Your task to perform on an android device: Go to location settings Image 0: 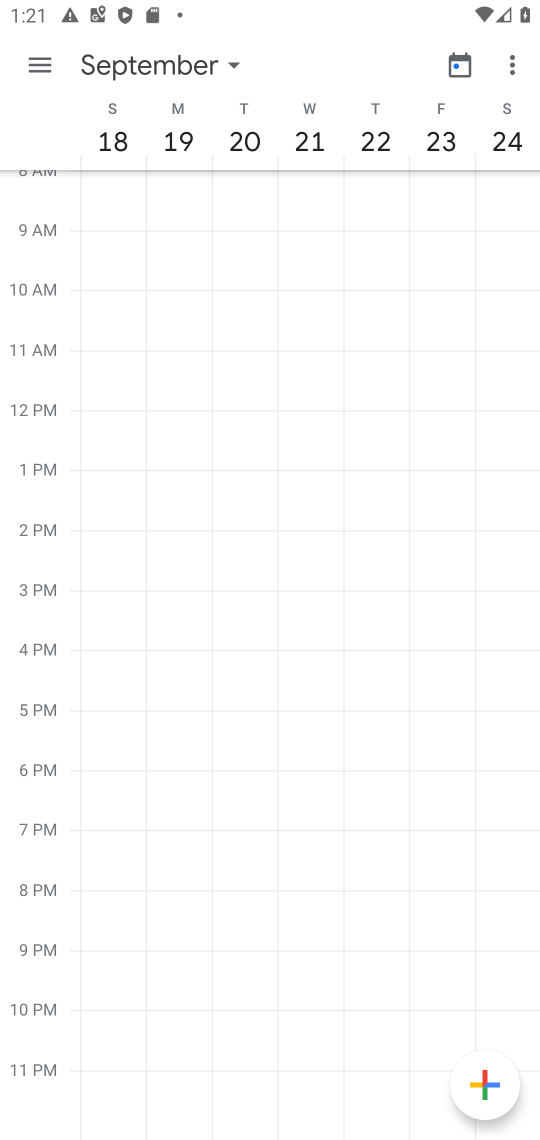
Step 0: press home button
Your task to perform on an android device: Go to location settings Image 1: 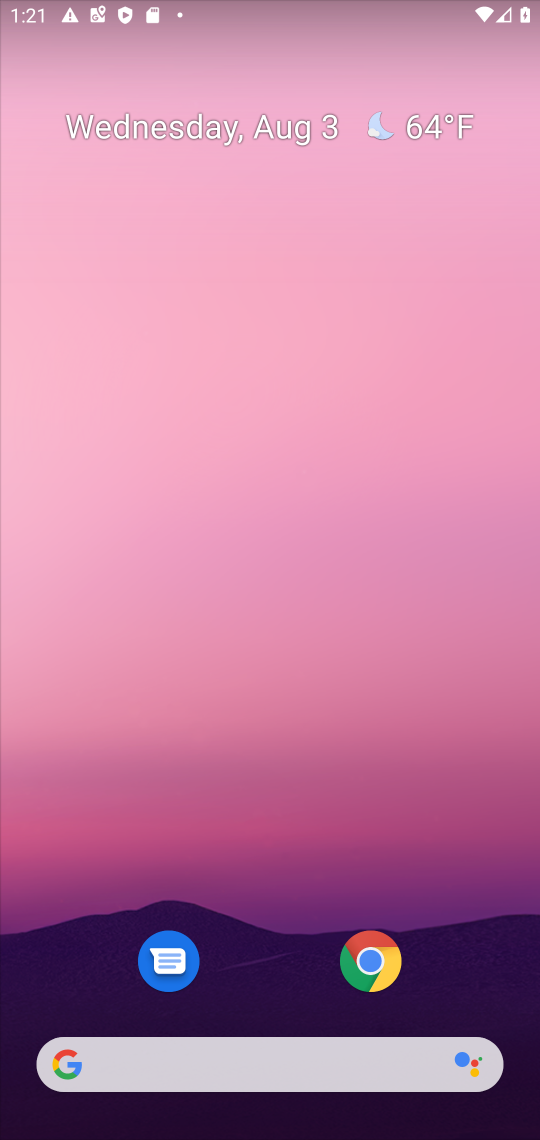
Step 1: drag from (272, 930) to (285, 54)
Your task to perform on an android device: Go to location settings Image 2: 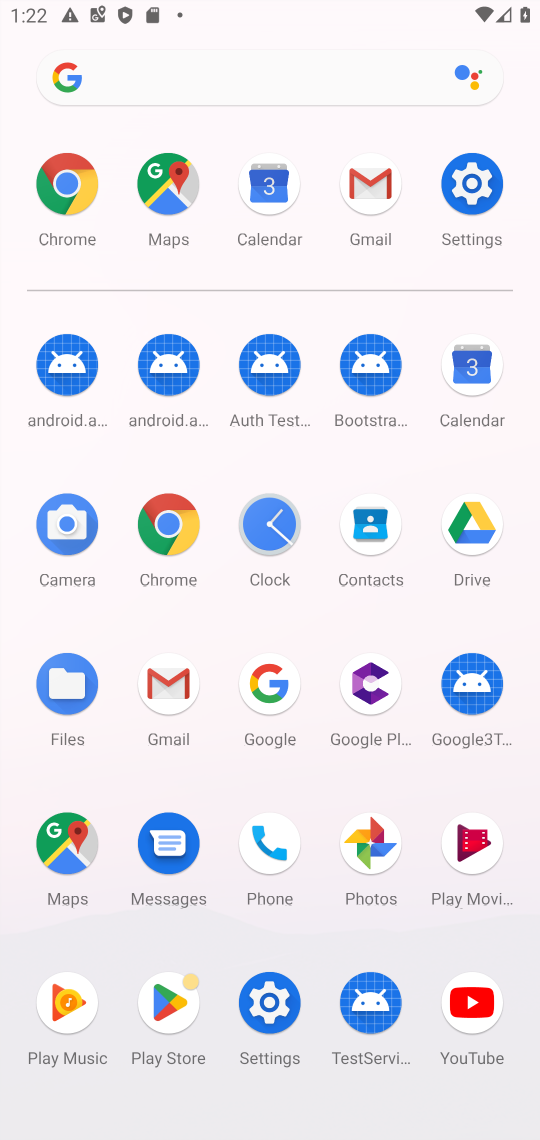
Step 2: click (469, 190)
Your task to perform on an android device: Go to location settings Image 3: 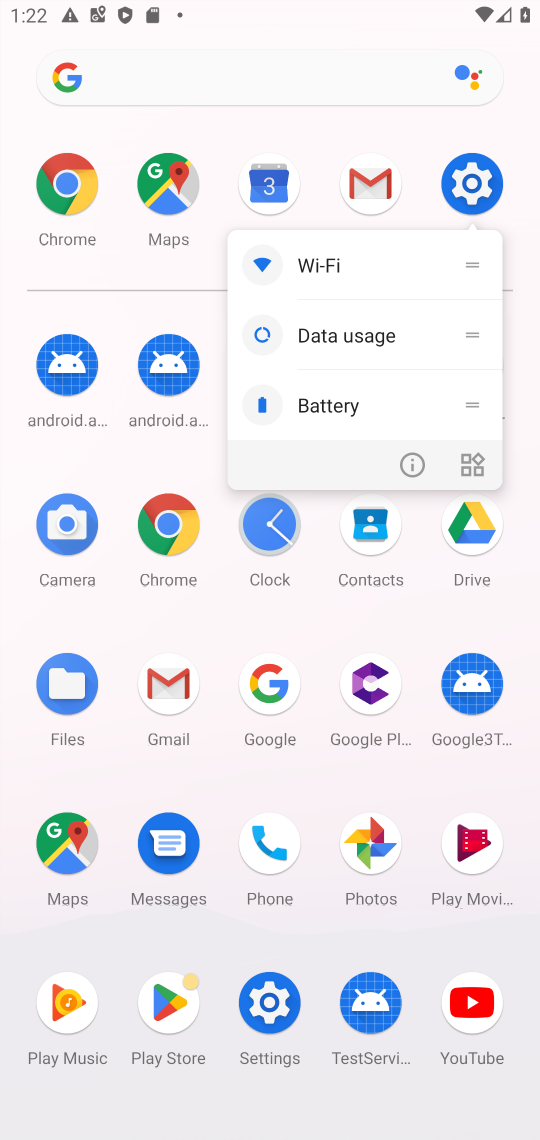
Step 3: click (471, 186)
Your task to perform on an android device: Go to location settings Image 4: 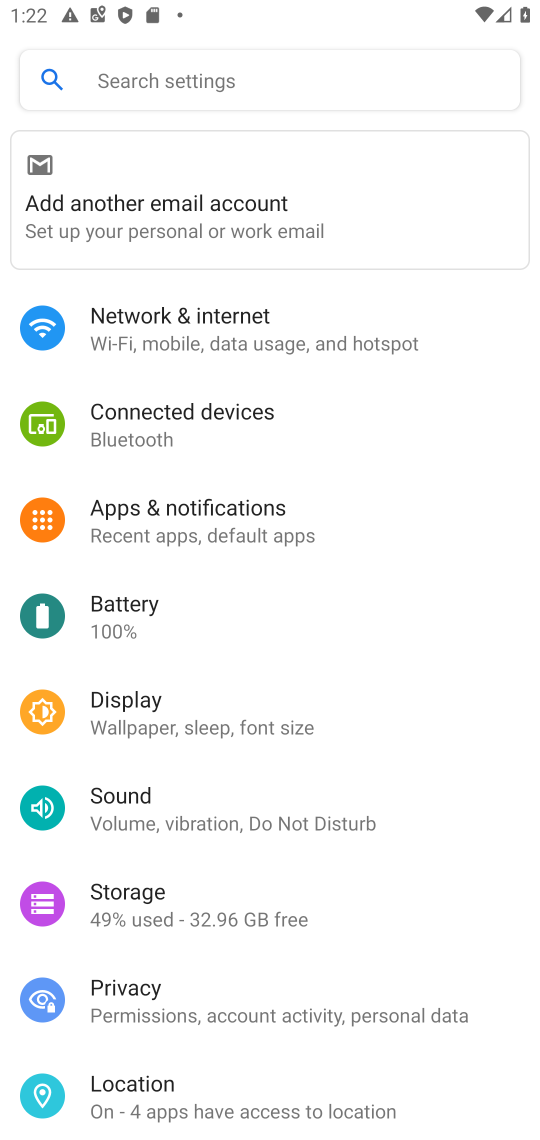
Step 4: click (102, 1093)
Your task to perform on an android device: Go to location settings Image 5: 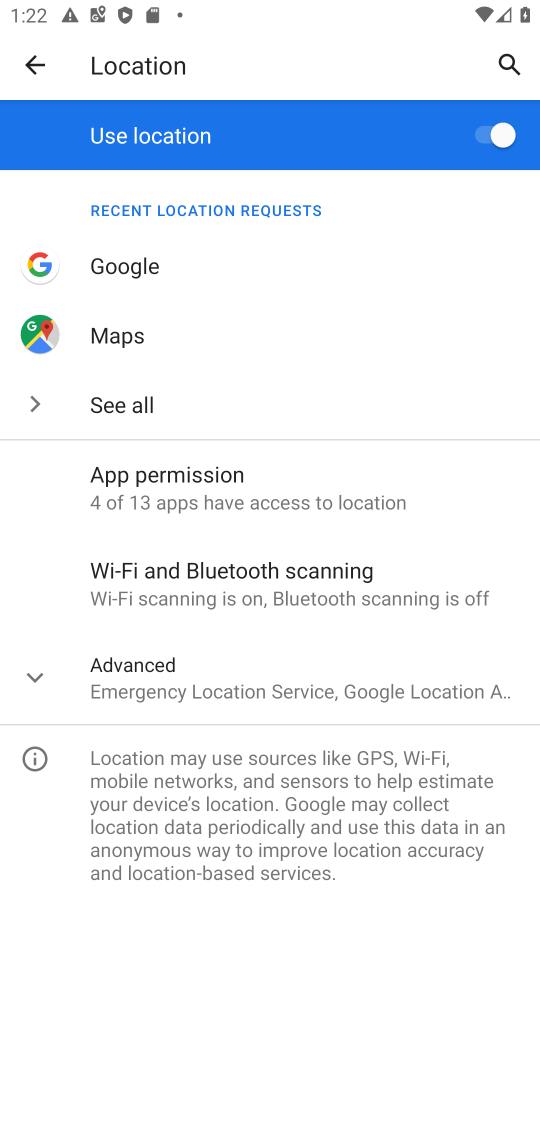
Step 5: task complete